Your task to perform on an android device: turn pop-ups off in chrome Image 0: 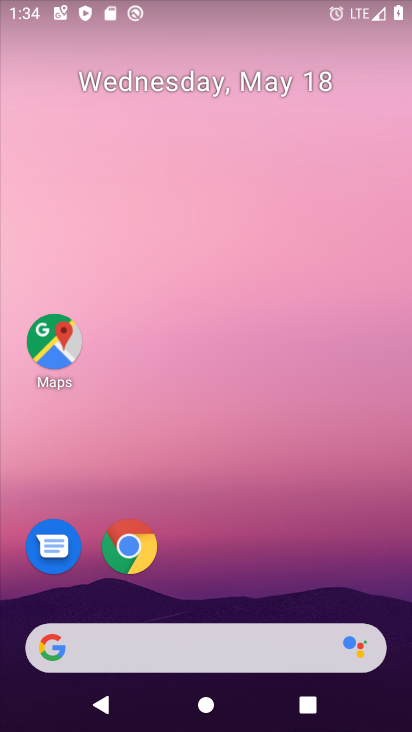
Step 0: drag from (173, 680) to (190, 101)
Your task to perform on an android device: turn pop-ups off in chrome Image 1: 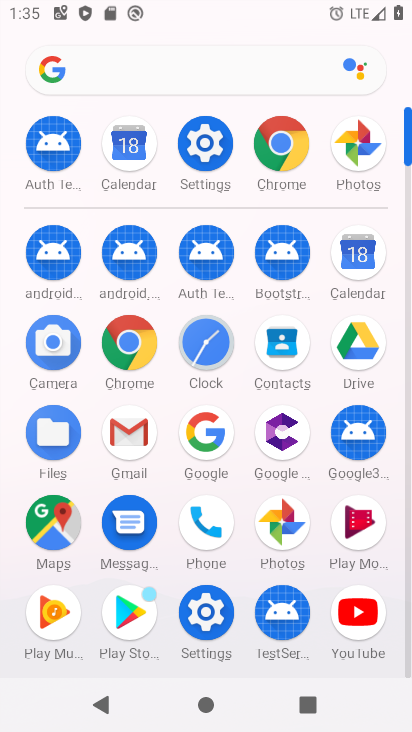
Step 1: click (269, 161)
Your task to perform on an android device: turn pop-ups off in chrome Image 2: 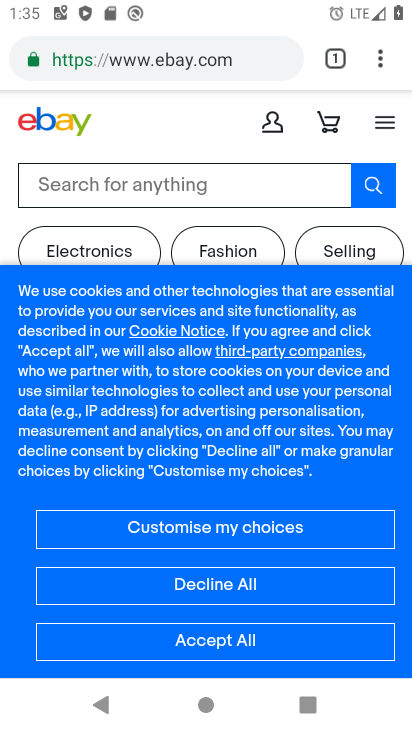
Step 2: click (378, 63)
Your task to perform on an android device: turn pop-ups off in chrome Image 3: 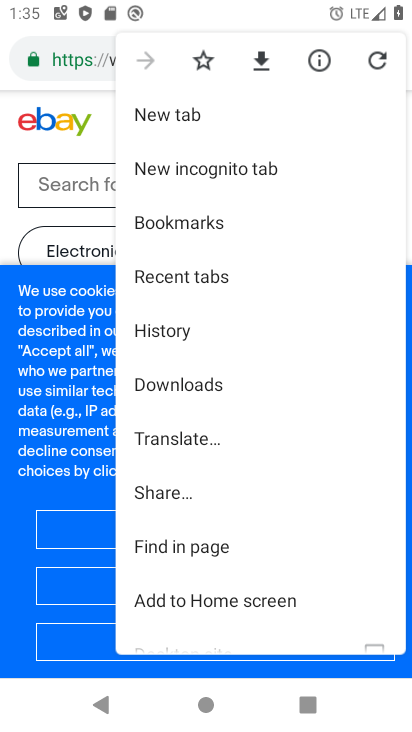
Step 3: drag from (212, 444) to (146, 9)
Your task to perform on an android device: turn pop-ups off in chrome Image 4: 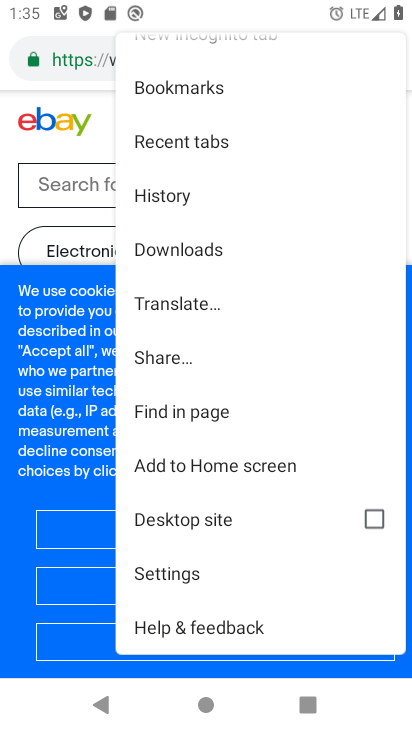
Step 4: click (210, 578)
Your task to perform on an android device: turn pop-ups off in chrome Image 5: 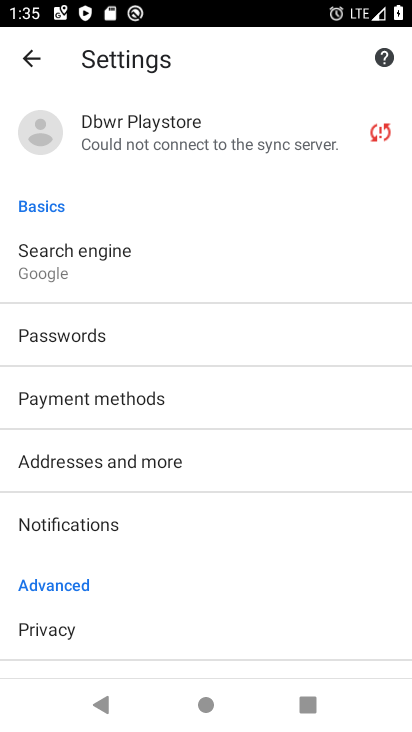
Step 5: drag from (175, 497) to (176, 14)
Your task to perform on an android device: turn pop-ups off in chrome Image 6: 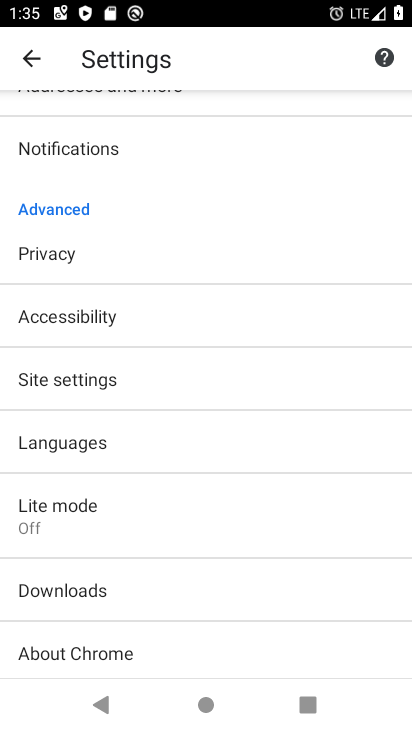
Step 6: click (131, 370)
Your task to perform on an android device: turn pop-ups off in chrome Image 7: 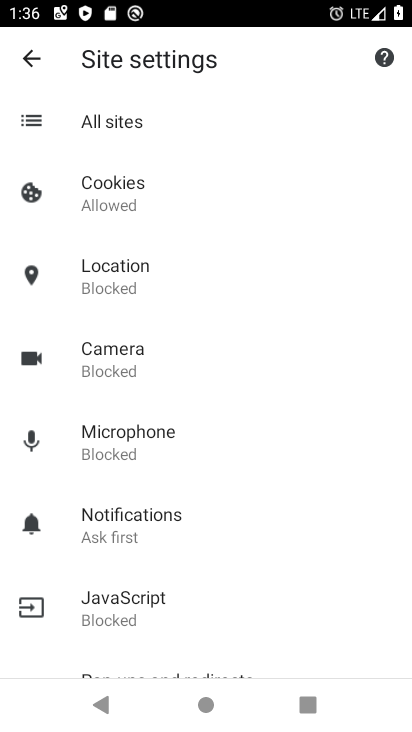
Step 7: drag from (131, 483) to (139, 182)
Your task to perform on an android device: turn pop-ups off in chrome Image 8: 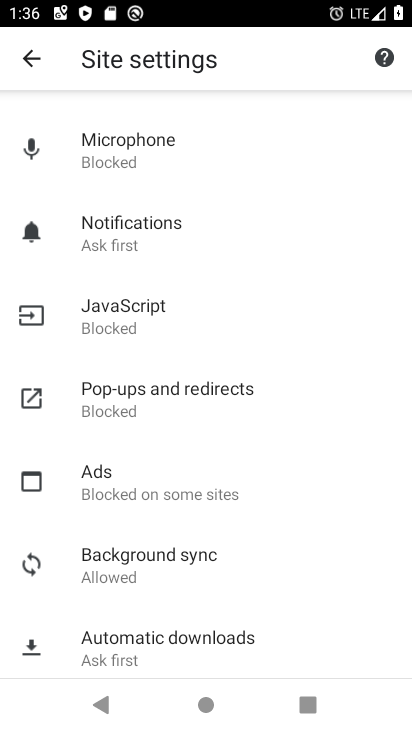
Step 8: click (184, 394)
Your task to perform on an android device: turn pop-ups off in chrome Image 9: 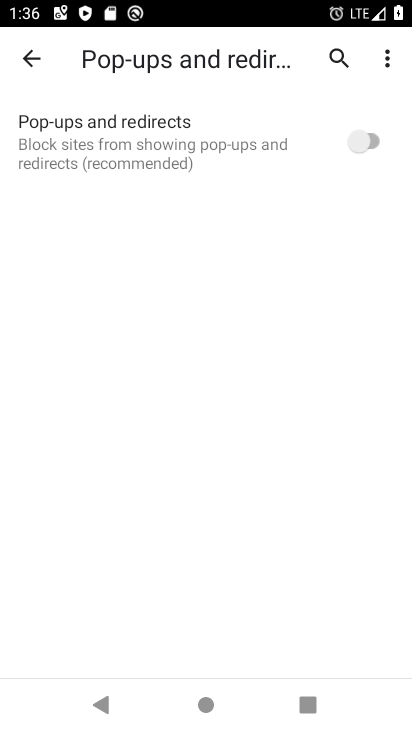
Step 9: click (346, 137)
Your task to perform on an android device: turn pop-ups off in chrome Image 10: 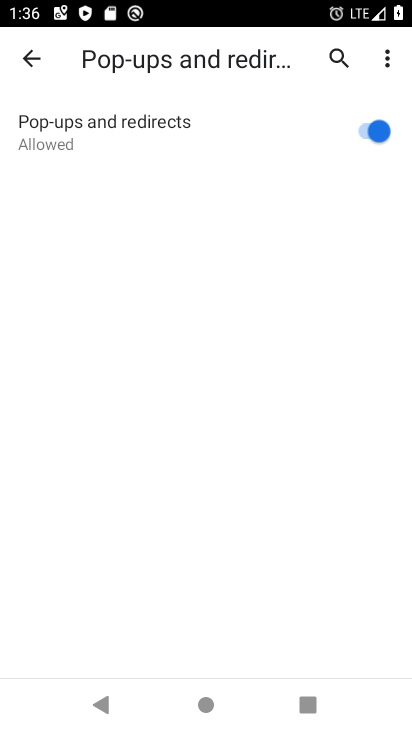
Step 10: click (347, 137)
Your task to perform on an android device: turn pop-ups off in chrome Image 11: 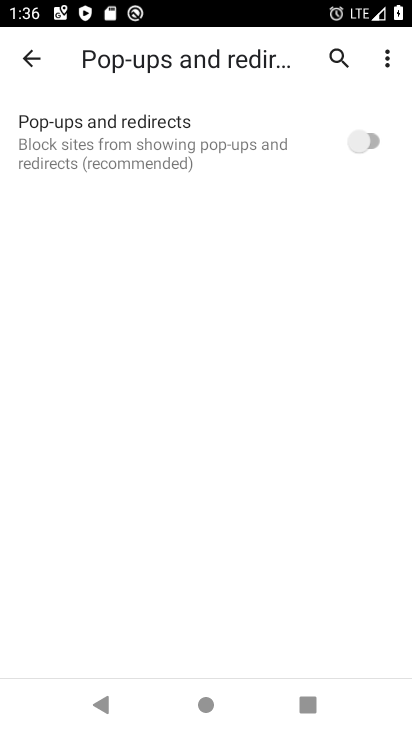
Step 11: task complete